Your task to perform on an android device: Show me the alarms in the clock app Image 0: 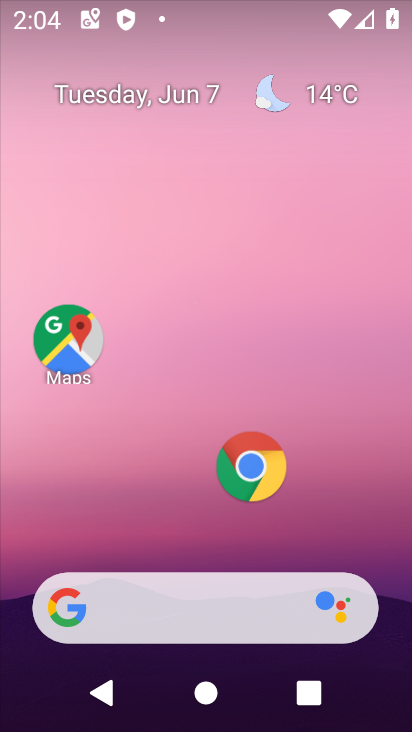
Step 0: drag from (174, 724) to (125, 27)
Your task to perform on an android device: Show me the alarms in the clock app Image 1: 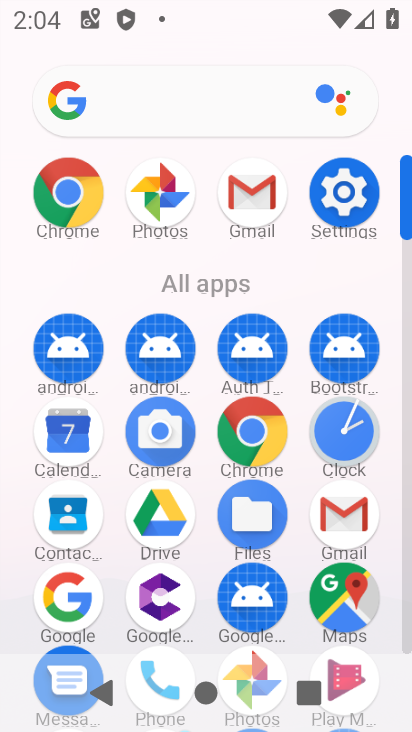
Step 1: click (359, 437)
Your task to perform on an android device: Show me the alarms in the clock app Image 2: 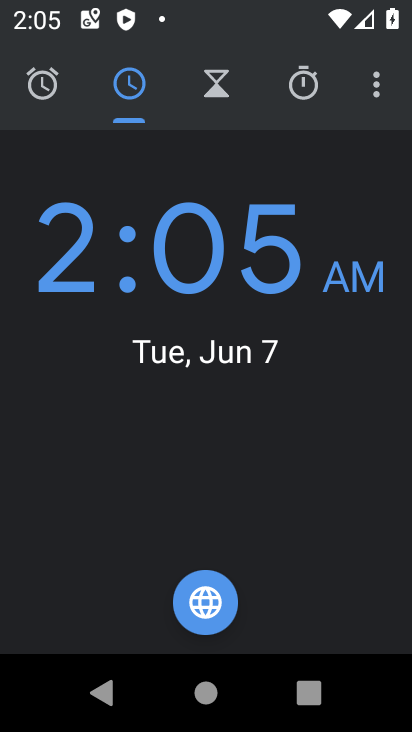
Step 2: click (53, 88)
Your task to perform on an android device: Show me the alarms in the clock app Image 3: 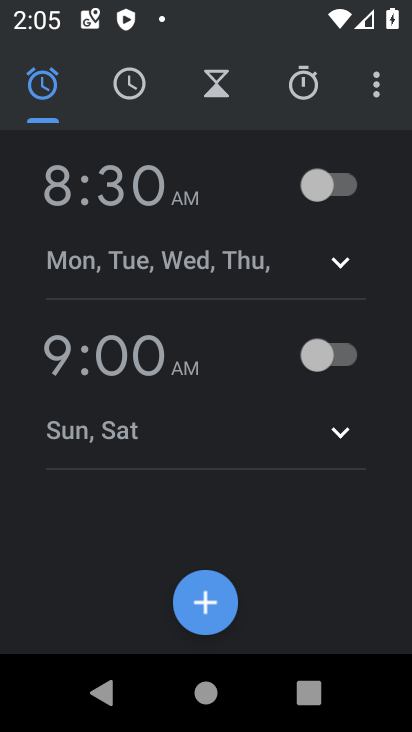
Step 3: task complete